Your task to perform on an android device: Go to Yahoo.com Image 0: 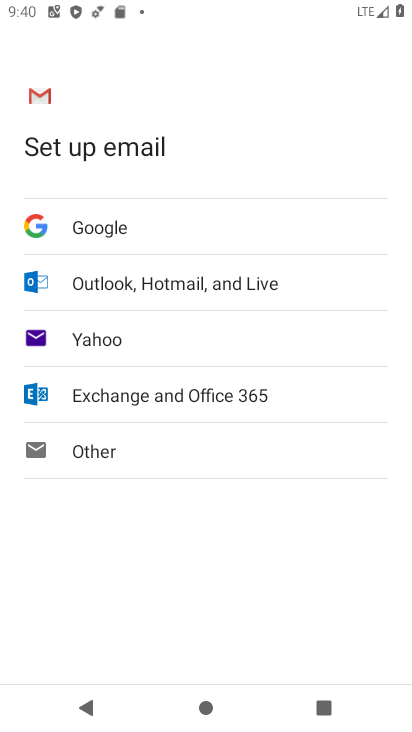
Step 0: press back button
Your task to perform on an android device: Go to Yahoo.com Image 1: 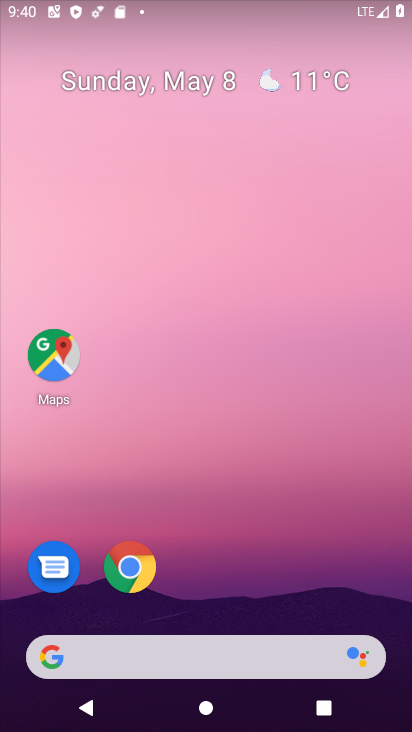
Step 1: click (139, 562)
Your task to perform on an android device: Go to Yahoo.com Image 2: 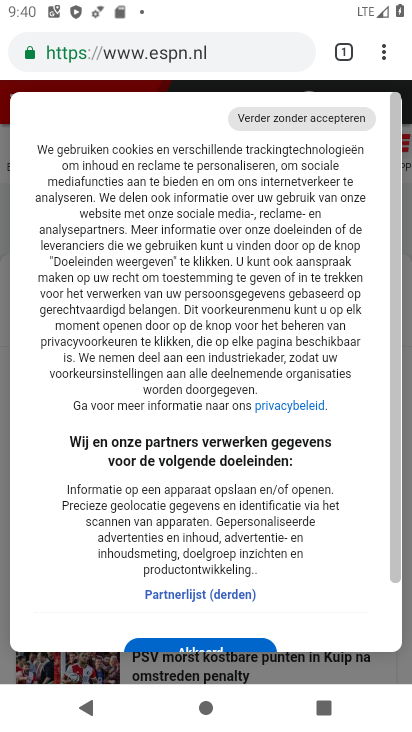
Step 2: click (340, 49)
Your task to perform on an android device: Go to Yahoo.com Image 3: 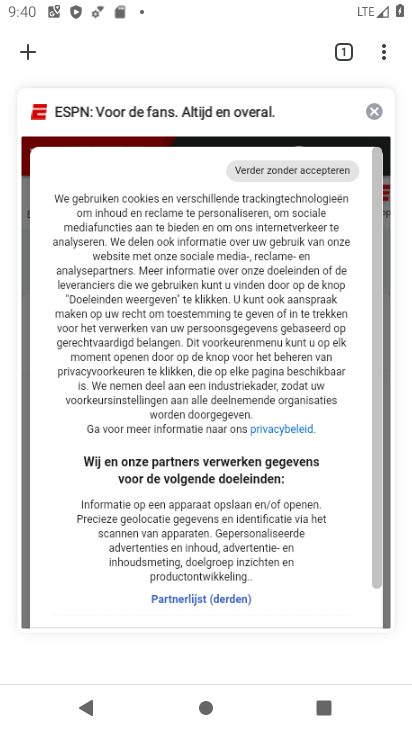
Step 3: click (37, 46)
Your task to perform on an android device: Go to Yahoo.com Image 4: 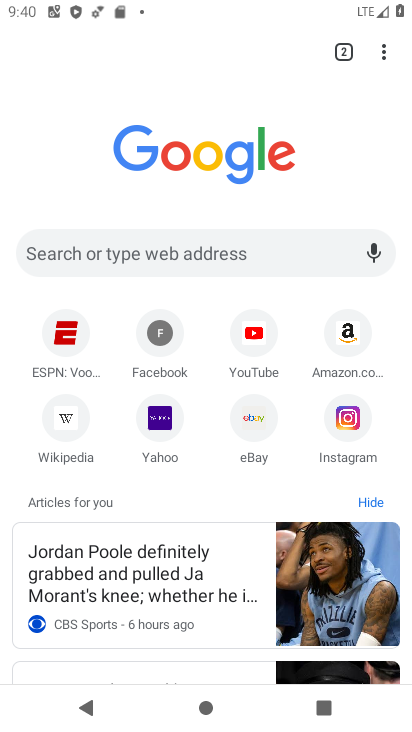
Step 4: click (163, 428)
Your task to perform on an android device: Go to Yahoo.com Image 5: 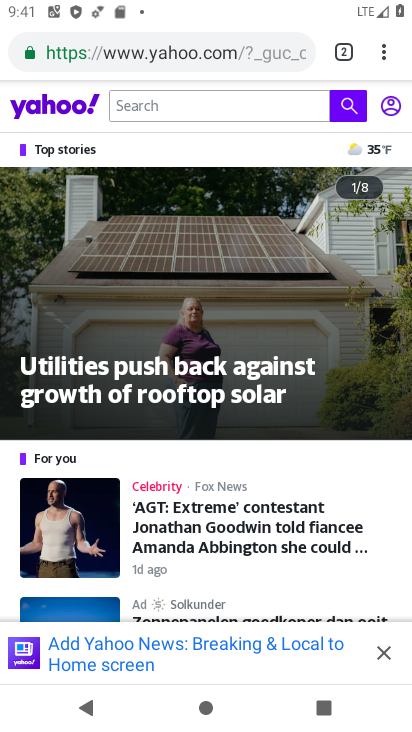
Step 5: task complete